Your task to perform on an android device: star an email in the gmail app Image 0: 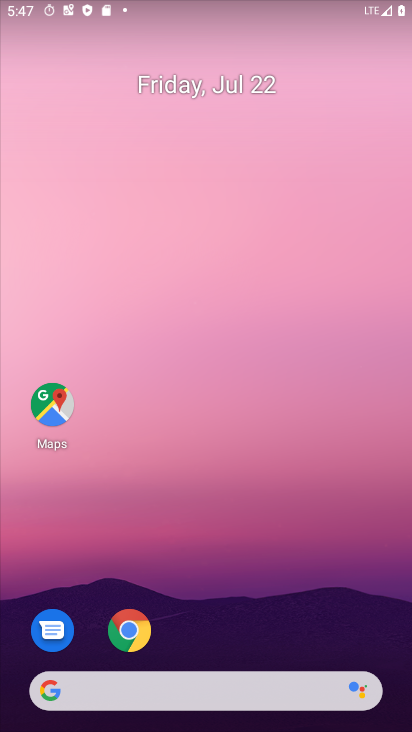
Step 0: drag from (271, 688) to (263, 36)
Your task to perform on an android device: star an email in the gmail app Image 1: 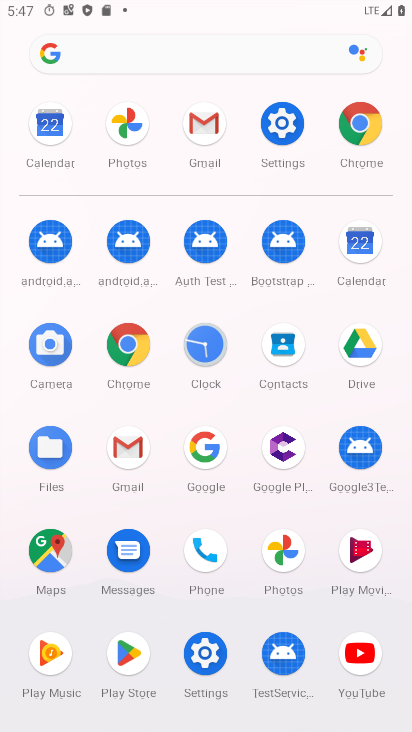
Step 1: click (142, 441)
Your task to perform on an android device: star an email in the gmail app Image 2: 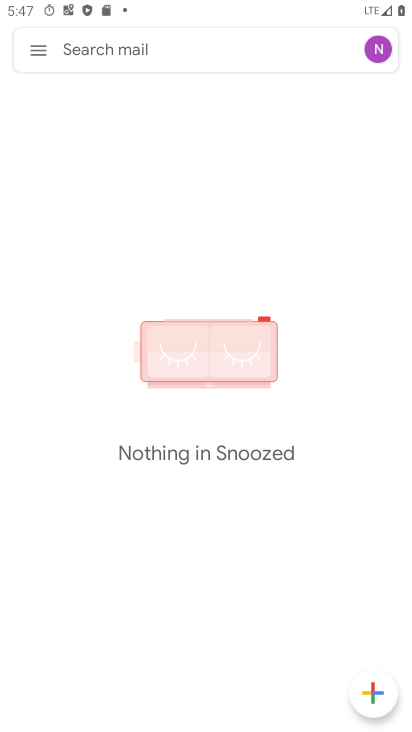
Step 2: click (40, 54)
Your task to perform on an android device: star an email in the gmail app Image 3: 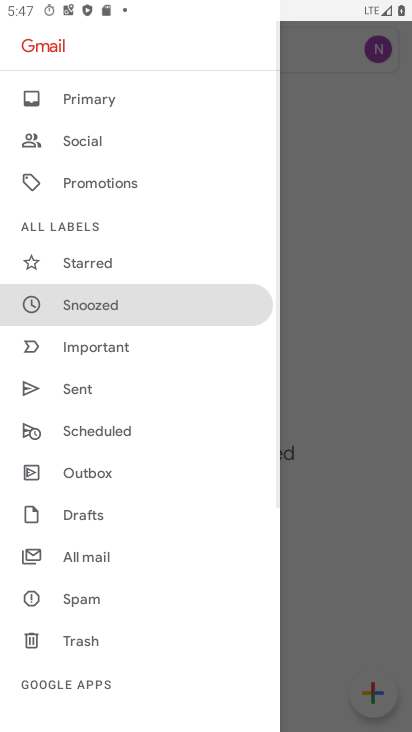
Step 3: click (119, 277)
Your task to perform on an android device: star an email in the gmail app Image 4: 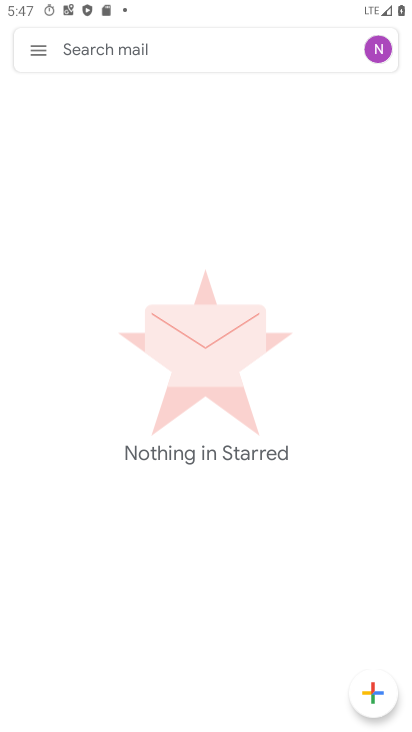
Step 4: task complete